Your task to perform on an android device: Is it going to rain tomorrow? Image 0: 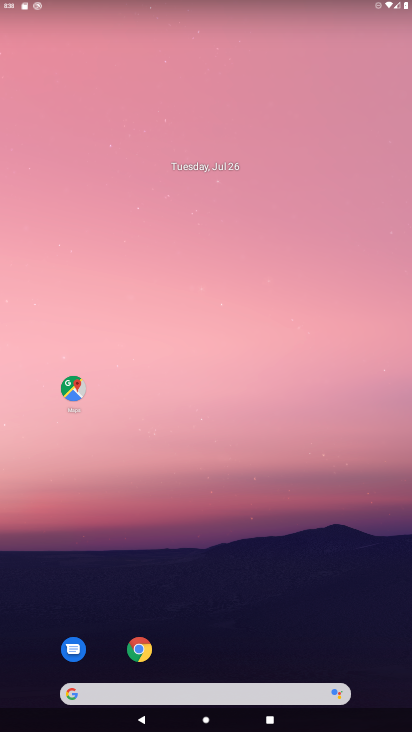
Step 0: click (172, 695)
Your task to perform on an android device: Is it going to rain tomorrow? Image 1: 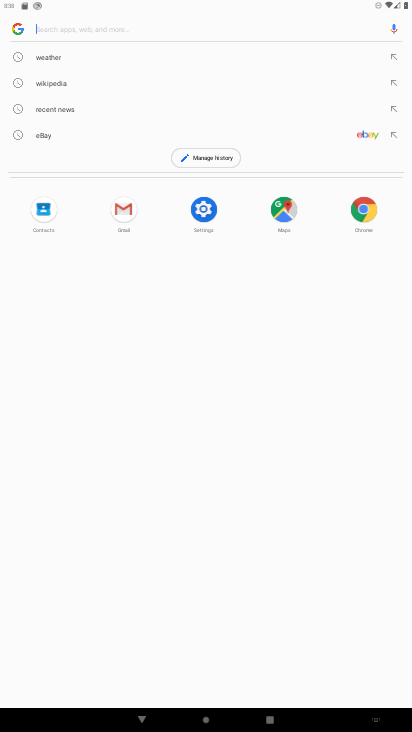
Step 1: click (104, 61)
Your task to perform on an android device: Is it going to rain tomorrow? Image 2: 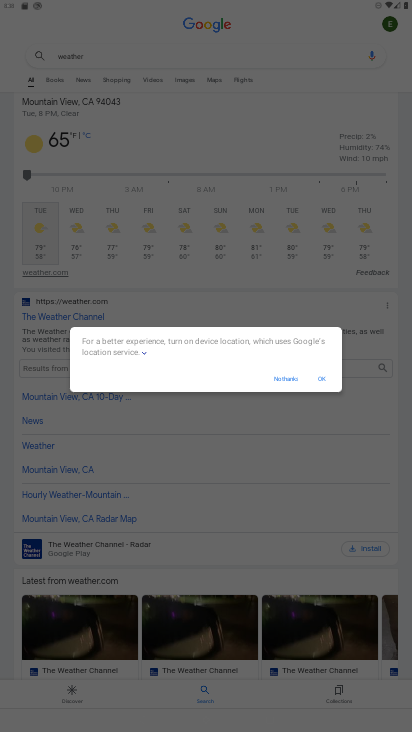
Step 2: click (81, 225)
Your task to perform on an android device: Is it going to rain tomorrow? Image 3: 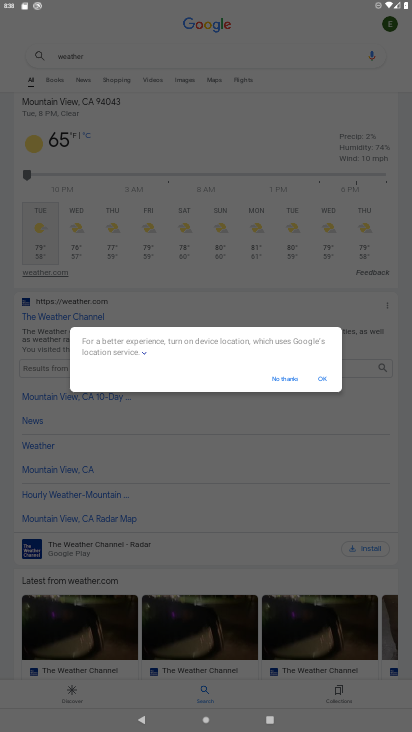
Step 3: click (322, 383)
Your task to perform on an android device: Is it going to rain tomorrow? Image 4: 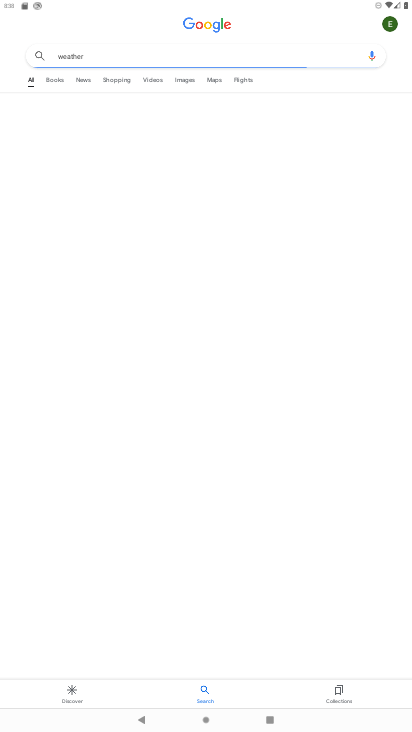
Step 4: click (73, 241)
Your task to perform on an android device: Is it going to rain tomorrow? Image 5: 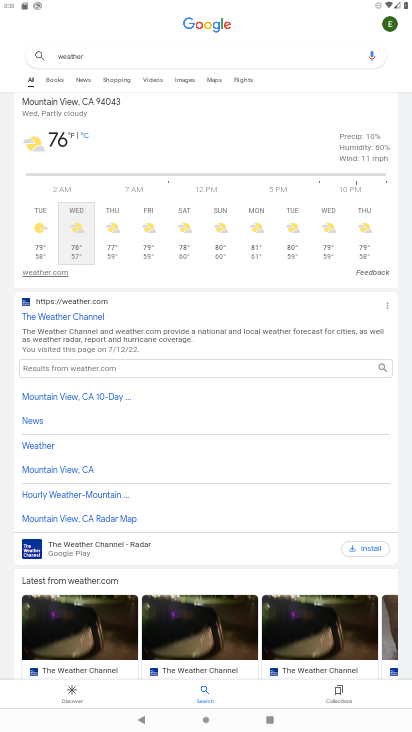
Step 5: click (76, 266)
Your task to perform on an android device: Is it going to rain tomorrow? Image 6: 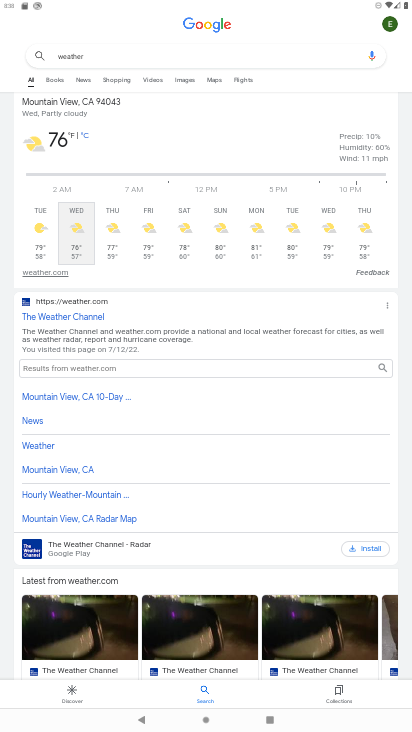
Step 6: task complete